Your task to perform on an android device: Open calendar and show me the second week of next month Image 0: 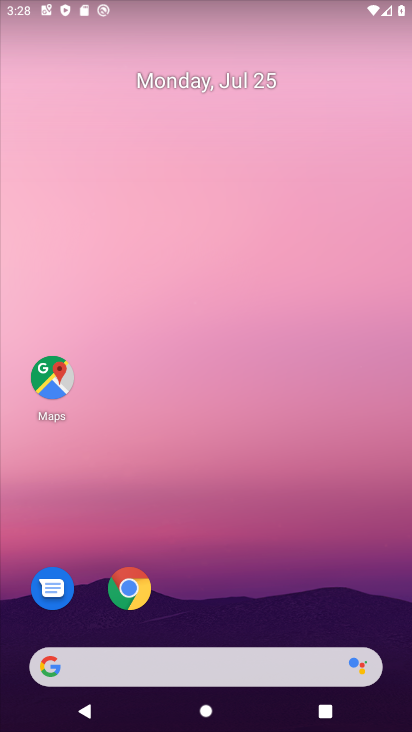
Step 0: drag from (347, 585) to (253, 54)
Your task to perform on an android device: Open calendar and show me the second week of next month Image 1: 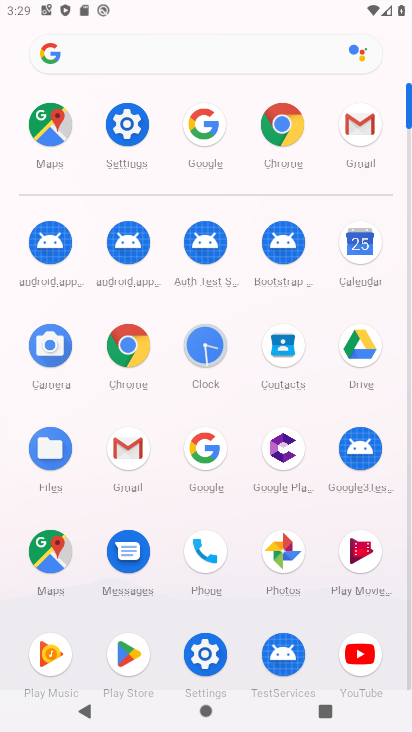
Step 1: click (371, 241)
Your task to perform on an android device: Open calendar and show me the second week of next month Image 2: 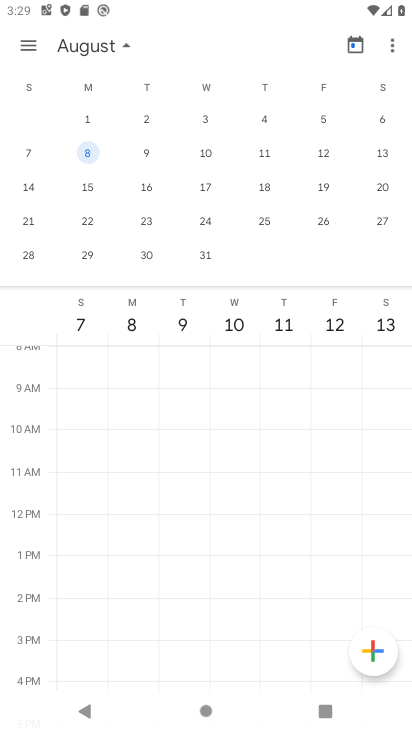
Step 2: task complete